Your task to perform on an android device: Open location settings Image 0: 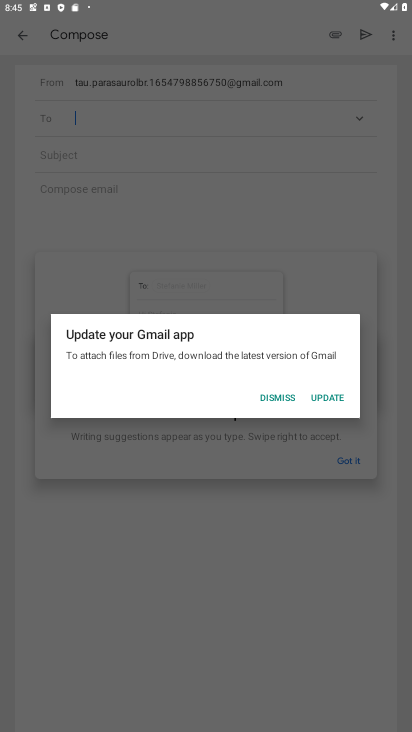
Step 0: press home button
Your task to perform on an android device: Open location settings Image 1: 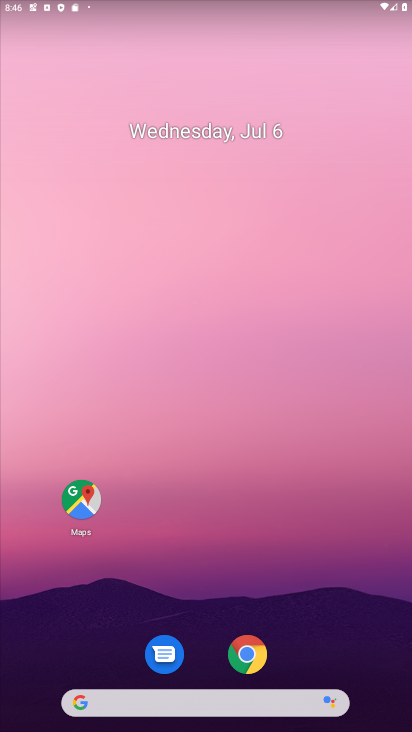
Step 1: drag from (258, 5) to (296, 478)
Your task to perform on an android device: Open location settings Image 2: 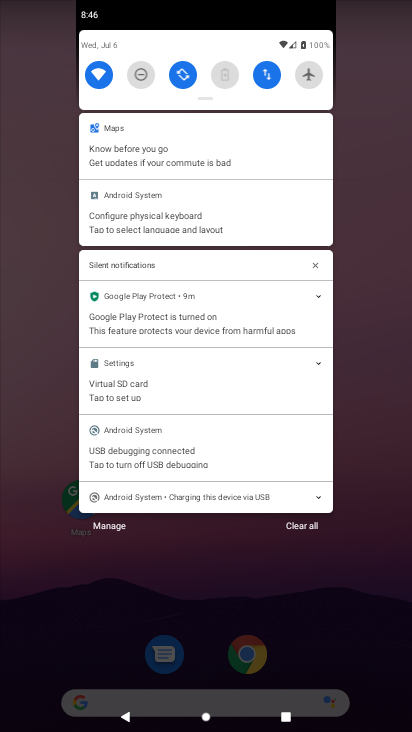
Step 2: drag from (246, 56) to (225, 532)
Your task to perform on an android device: Open location settings Image 3: 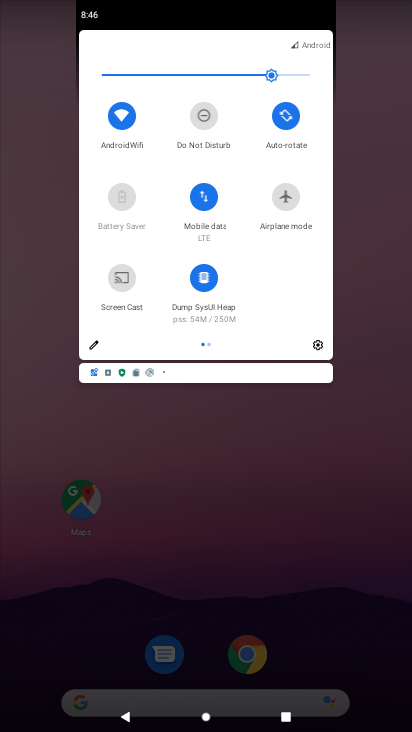
Step 3: click (318, 345)
Your task to perform on an android device: Open location settings Image 4: 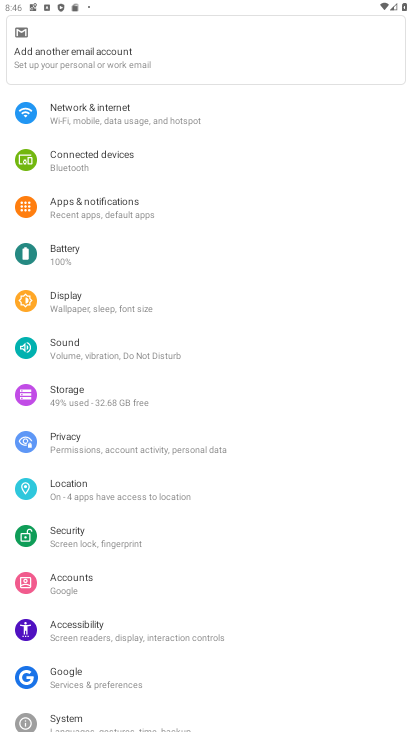
Step 4: click (120, 504)
Your task to perform on an android device: Open location settings Image 5: 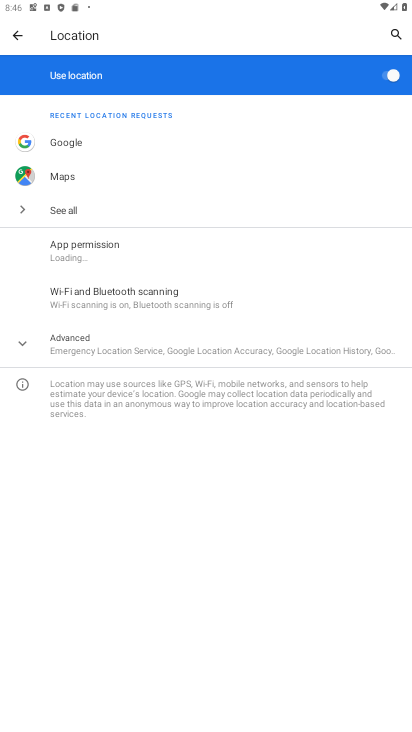
Step 5: task complete